Your task to perform on an android device: Open Google Chrome and open the bookmarks view Image 0: 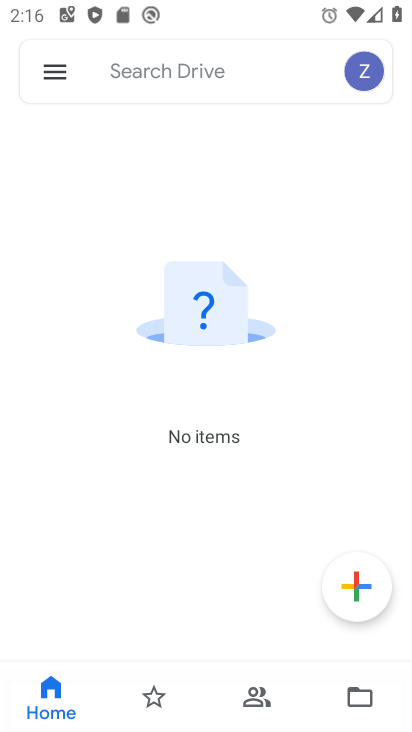
Step 0: press home button
Your task to perform on an android device: Open Google Chrome and open the bookmarks view Image 1: 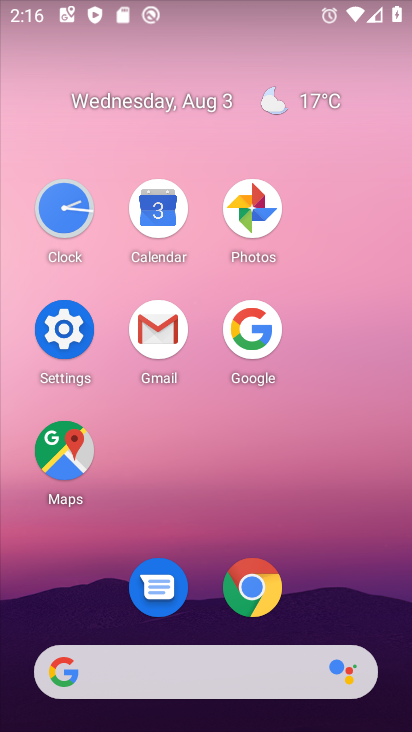
Step 1: click (261, 582)
Your task to perform on an android device: Open Google Chrome and open the bookmarks view Image 2: 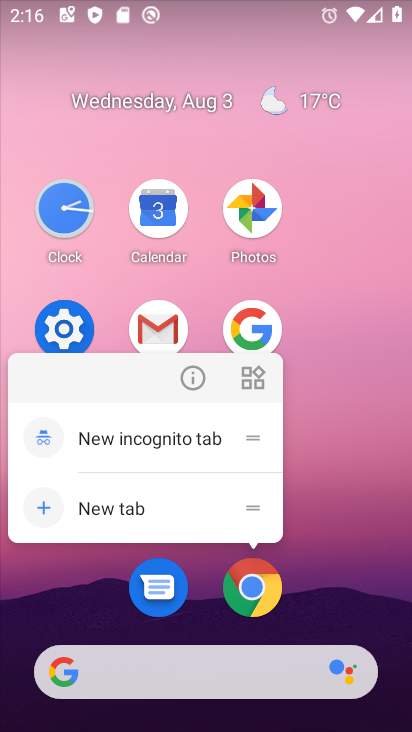
Step 2: click (248, 605)
Your task to perform on an android device: Open Google Chrome and open the bookmarks view Image 3: 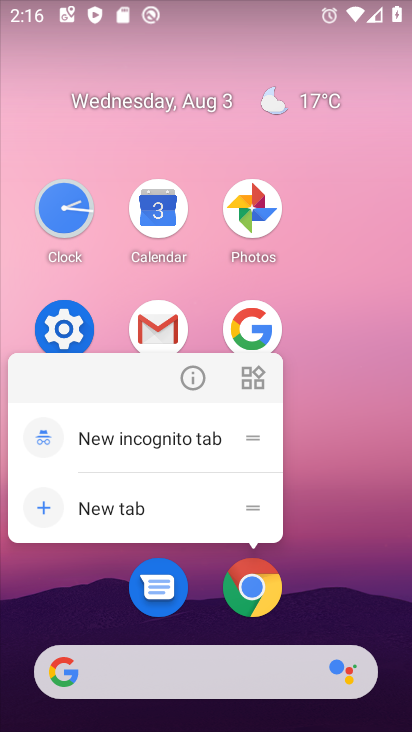
Step 3: click (249, 587)
Your task to perform on an android device: Open Google Chrome and open the bookmarks view Image 4: 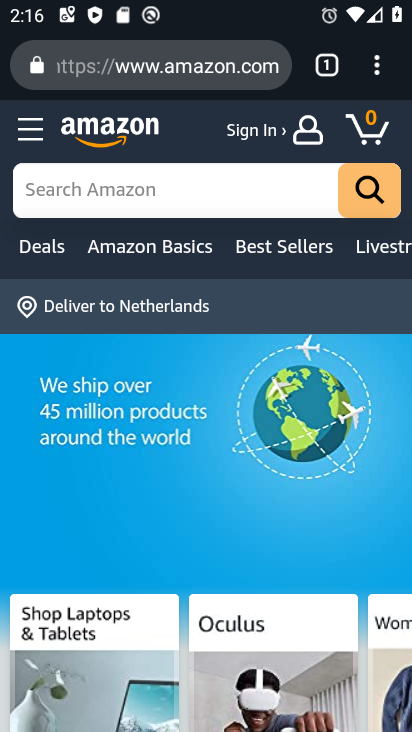
Step 4: click (381, 61)
Your task to perform on an android device: Open Google Chrome and open the bookmarks view Image 5: 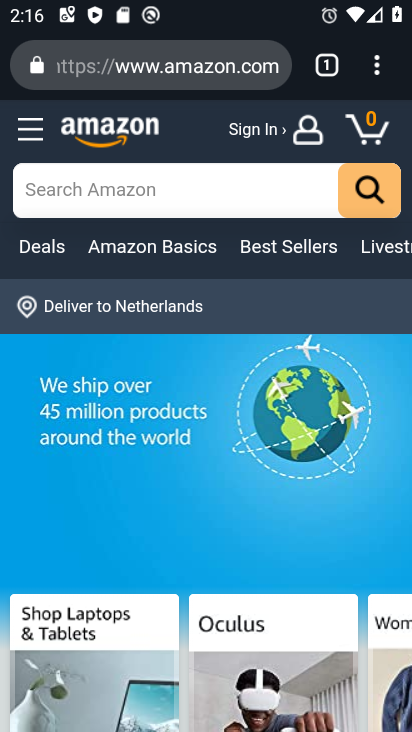
Step 5: click (383, 61)
Your task to perform on an android device: Open Google Chrome and open the bookmarks view Image 6: 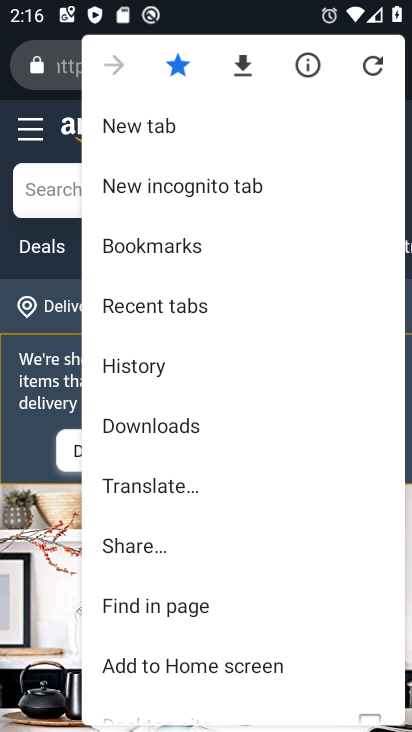
Step 6: click (206, 243)
Your task to perform on an android device: Open Google Chrome and open the bookmarks view Image 7: 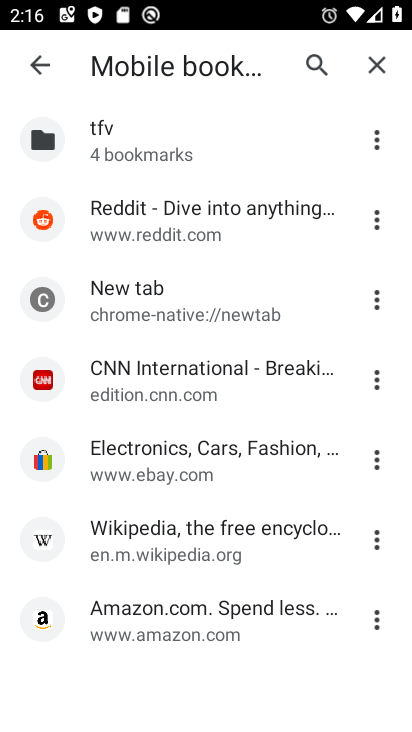
Step 7: task complete